Your task to perform on an android device: Open the web browser Image 0: 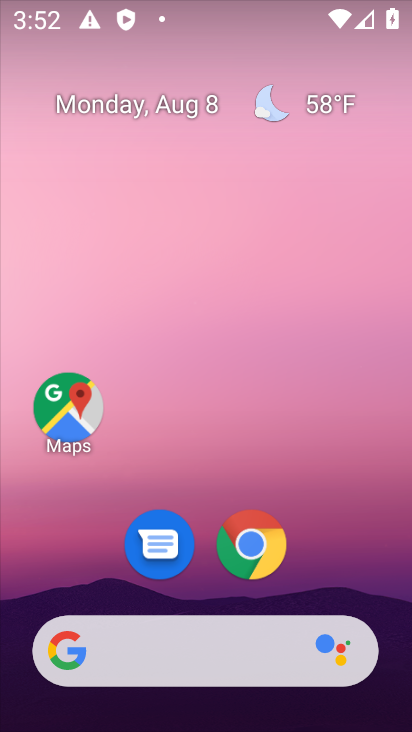
Step 0: drag from (249, 364) to (269, 98)
Your task to perform on an android device: Open the web browser Image 1: 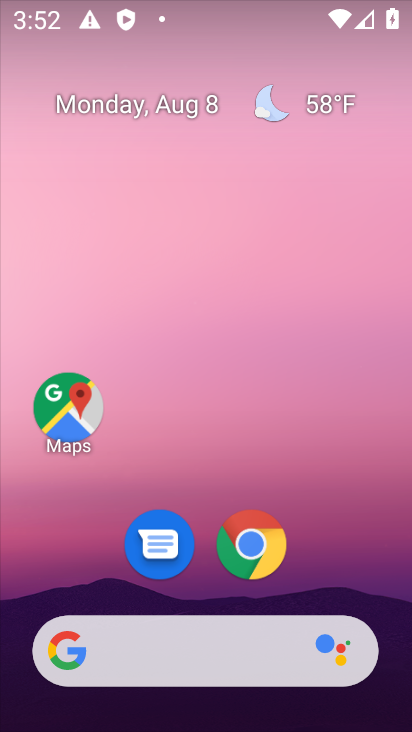
Step 1: drag from (223, 685) to (185, 13)
Your task to perform on an android device: Open the web browser Image 2: 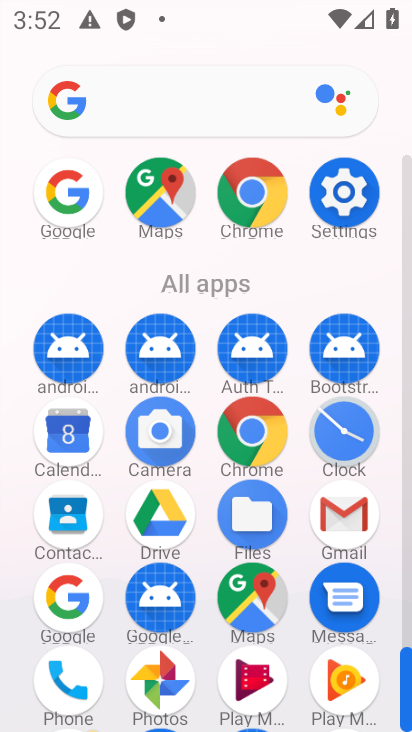
Step 2: click (249, 200)
Your task to perform on an android device: Open the web browser Image 3: 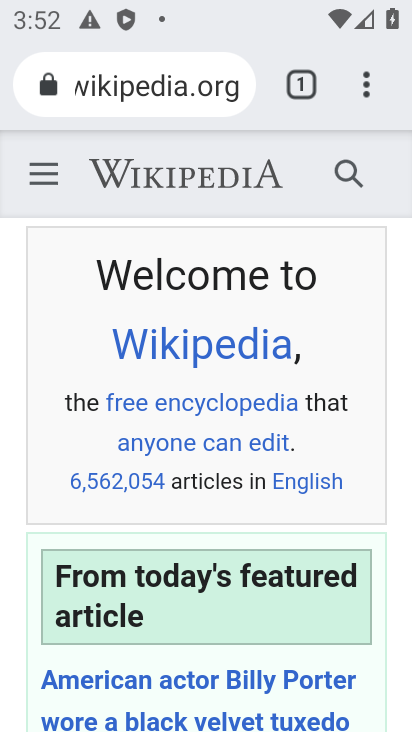
Step 3: task complete